Your task to perform on an android device: turn on notifications settings in the gmail app Image 0: 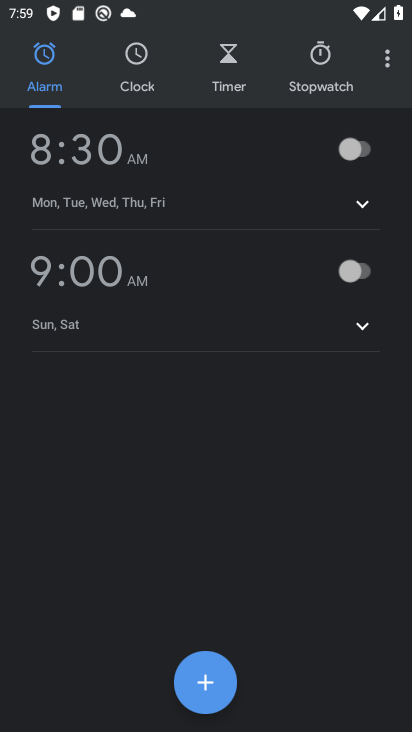
Step 0: press home button
Your task to perform on an android device: turn on notifications settings in the gmail app Image 1: 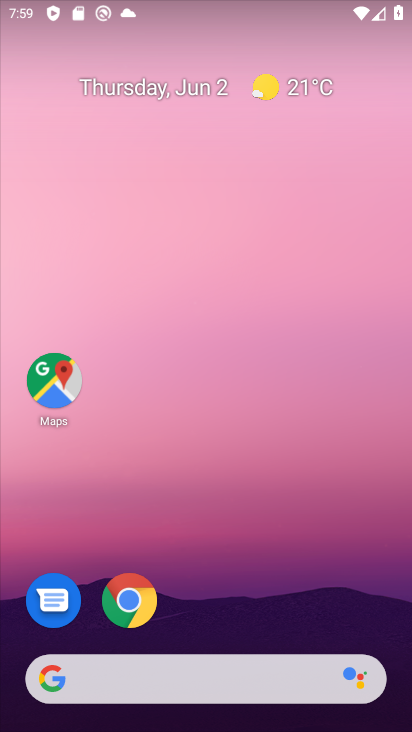
Step 1: drag from (381, 595) to (363, 157)
Your task to perform on an android device: turn on notifications settings in the gmail app Image 2: 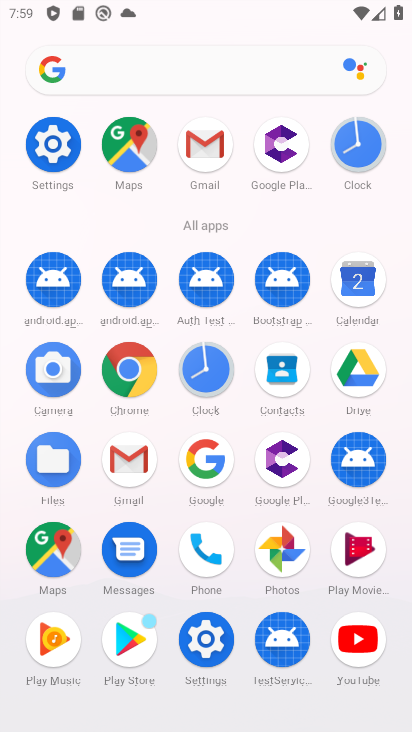
Step 2: click (209, 157)
Your task to perform on an android device: turn on notifications settings in the gmail app Image 3: 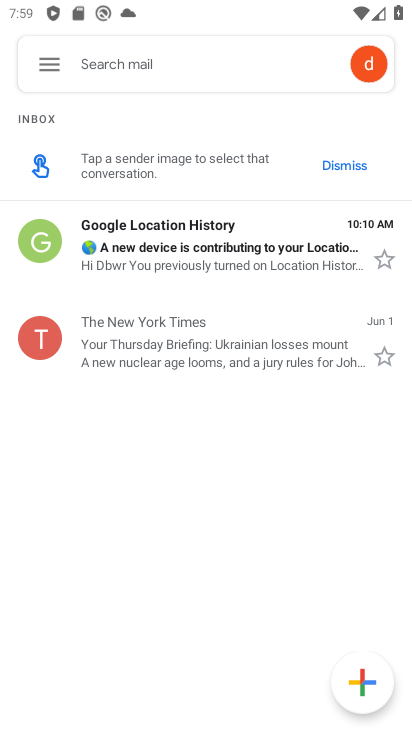
Step 3: click (58, 68)
Your task to perform on an android device: turn on notifications settings in the gmail app Image 4: 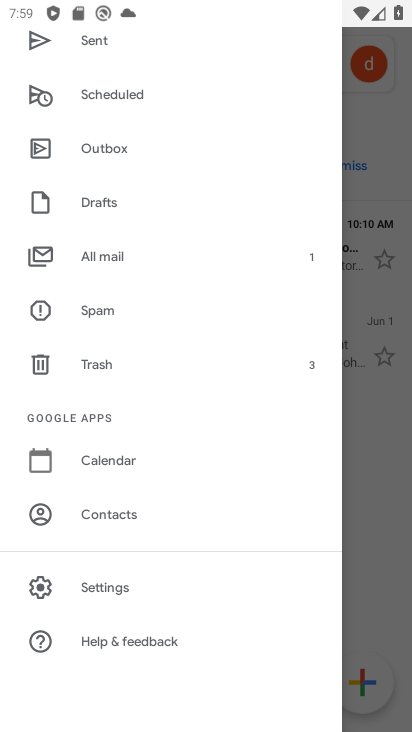
Step 4: drag from (251, 272) to (258, 358)
Your task to perform on an android device: turn on notifications settings in the gmail app Image 5: 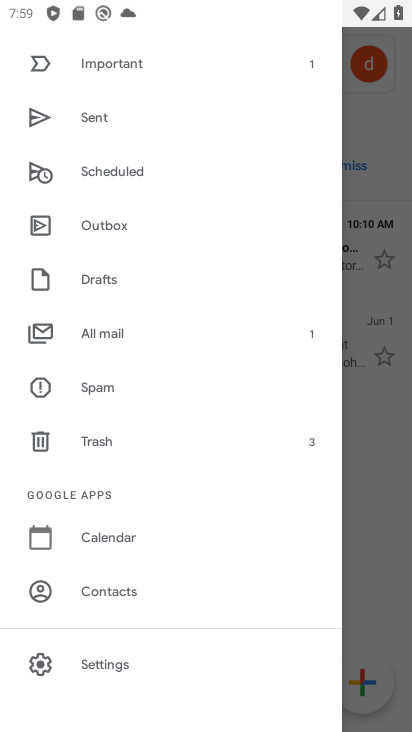
Step 5: drag from (228, 206) to (223, 308)
Your task to perform on an android device: turn on notifications settings in the gmail app Image 6: 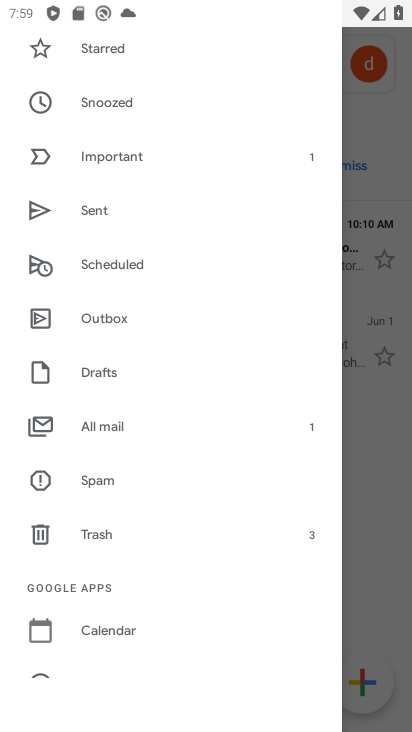
Step 6: drag from (229, 245) to (236, 329)
Your task to perform on an android device: turn on notifications settings in the gmail app Image 7: 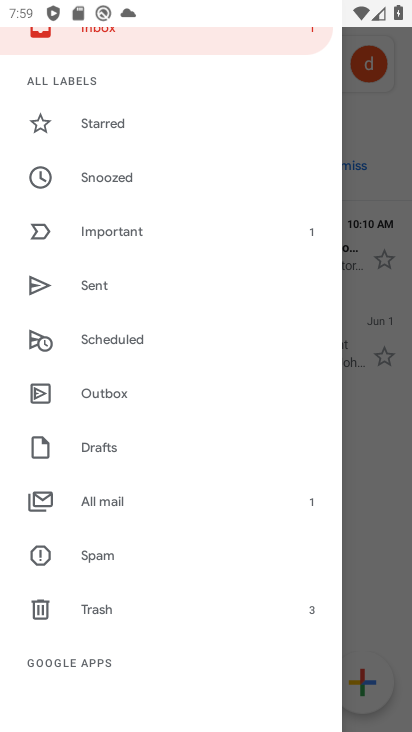
Step 7: drag from (261, 201) to (255, 368)
Your task to perform on an android device: turn on notifications settings in the gmail app Image 8: 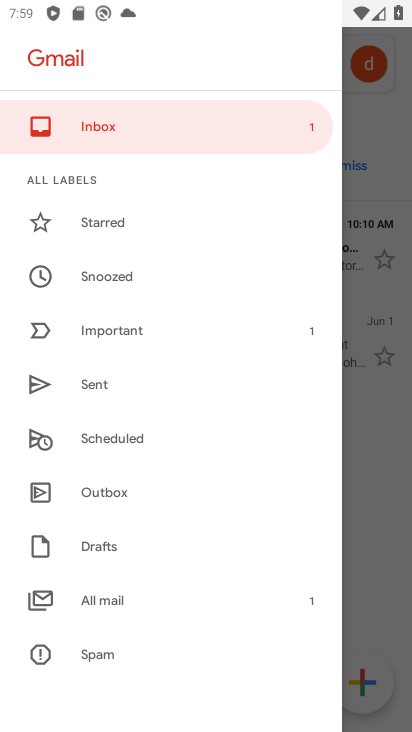
Step 8: drag from (235, 459) to (245, 330)
Your task to perform on an android device: turn on notifications settings in the gmail app Image 9: 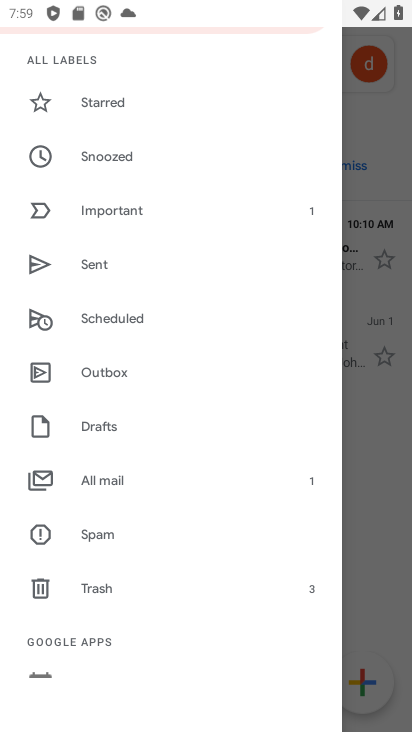
Step 9: drag from (215, 458) to (222, 376)
Your task to perform on an android device: turn on notifications settings in the gmail app Image 10: 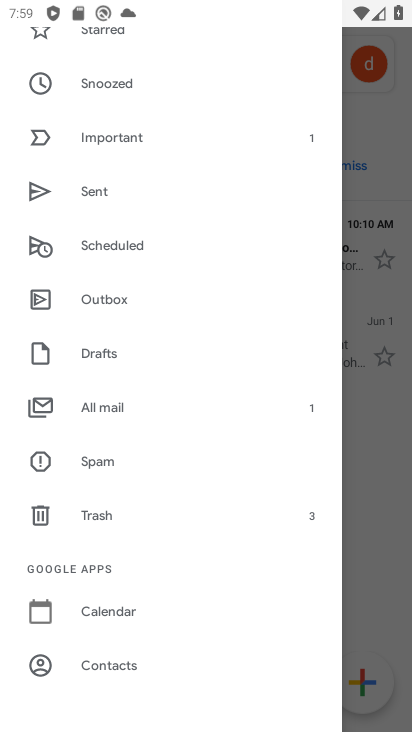
Step 10: drag from (218, 464) to (232, 388)
Your task to perform on an android device: turn on notifications settings in the gmail app Image 11: 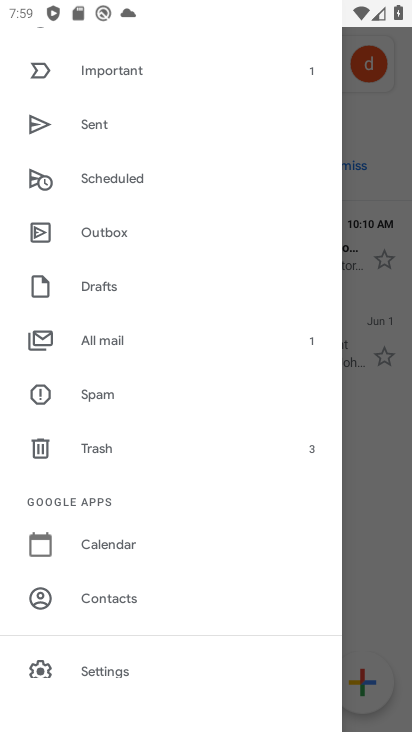
Step 11: drag from (239, 473) to (250, 334)
Your task to perform on an android device: turn on notifications settings in the gmail app Image 12: 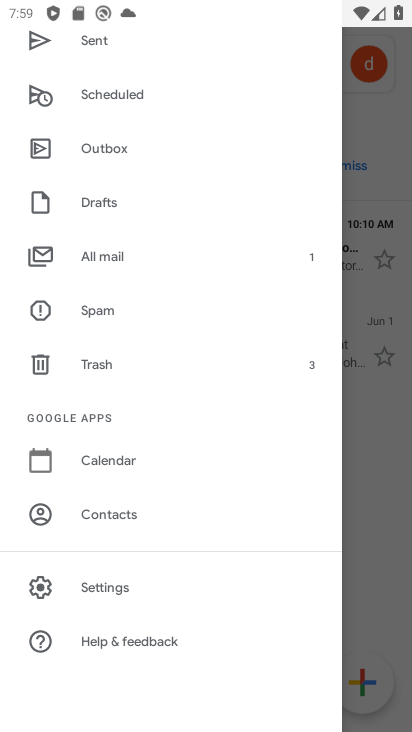
Step 12: click (138, 595)
Your task to perform on an android device: turn on notifications settings in the gmail app Image 13: 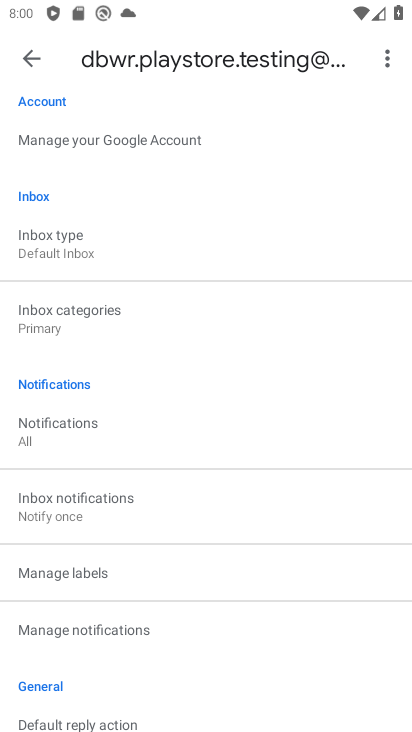
Step 13: drag from (223, 554) to (244, 452)
Your task to perform on an android device: turn on notifications settings in the gmail app Image 14: 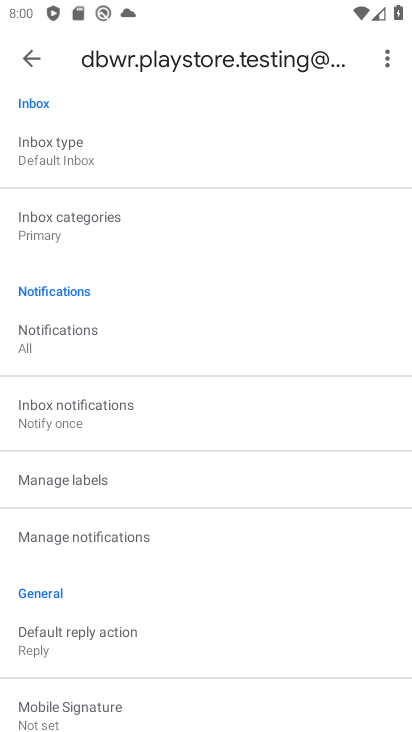
Step 14: drag from (274, 566) to (268, 471)
Your task to perform on an android device: turn on notifications settings in the gmail app Image 15: 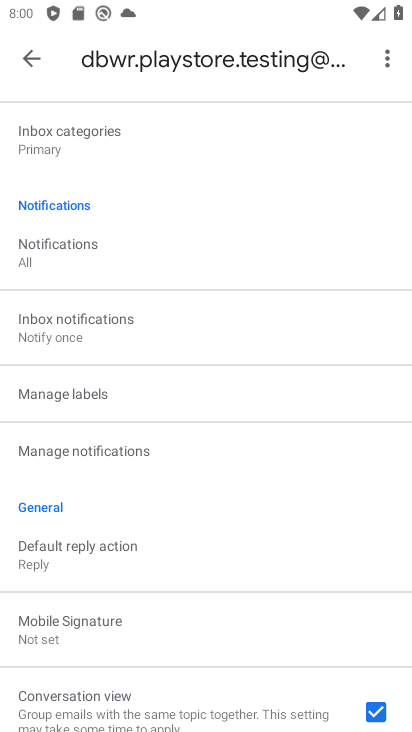
Step 15: drag from (225, 560) to (230, 442)
Your task to perform on an android device: turn on notifications settings in the gmail app Image 16: 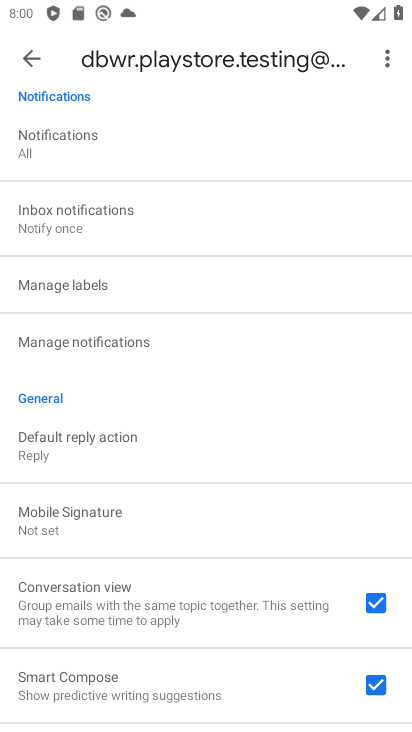
Step 16: click (167, 349)
Your task to perform on an android device: turn on notifications settings in the gmail app Image 17: 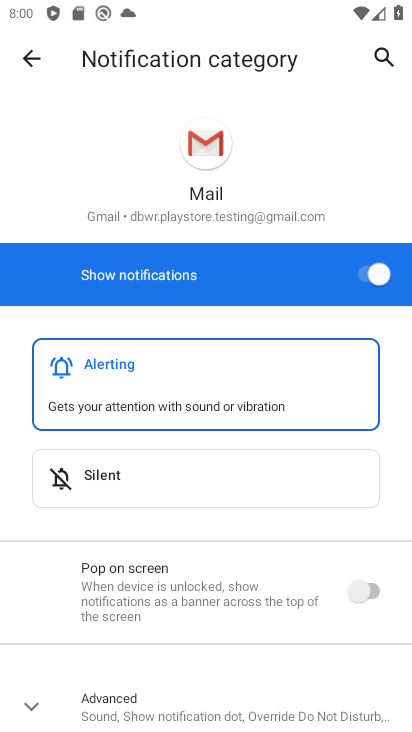
Step 17: task complete